Your task to perform on an android device: check out phone information Image 0: 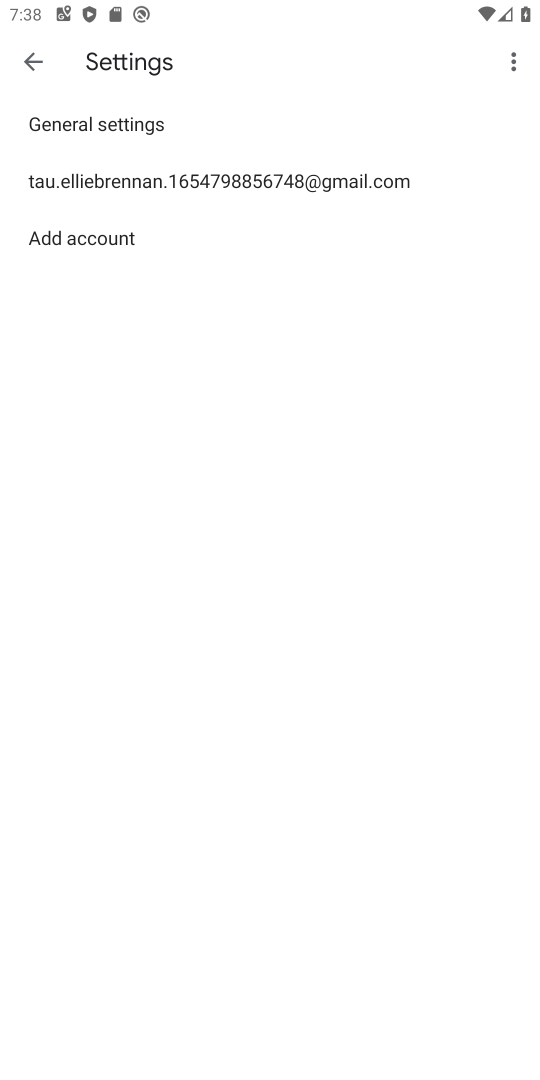
Step 0: press home button
Your task to perform on an android device: check out phone information Image 1: 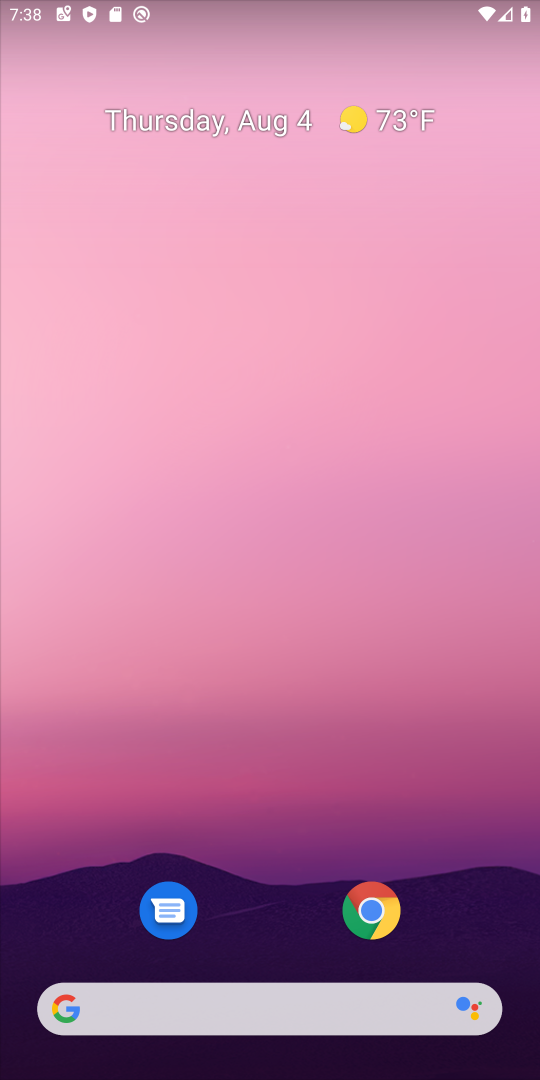
Step 1: drag from (299, 924) to (243, 33)
Your task to perform on an android device: check out phone information Image 2: 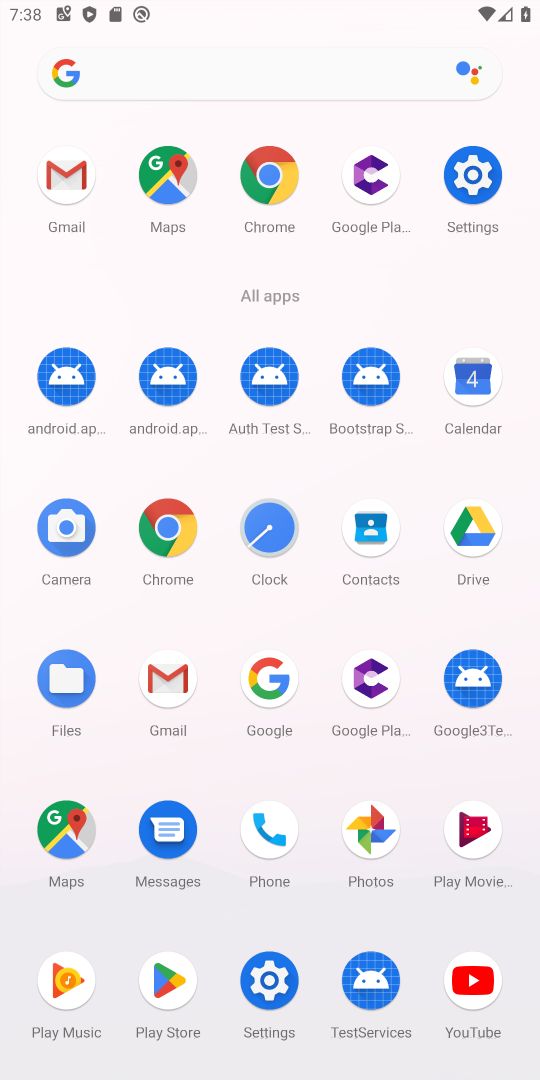
Step 2: click (256, 832)
Your task to perform on an android device: check out phone information Image 3: 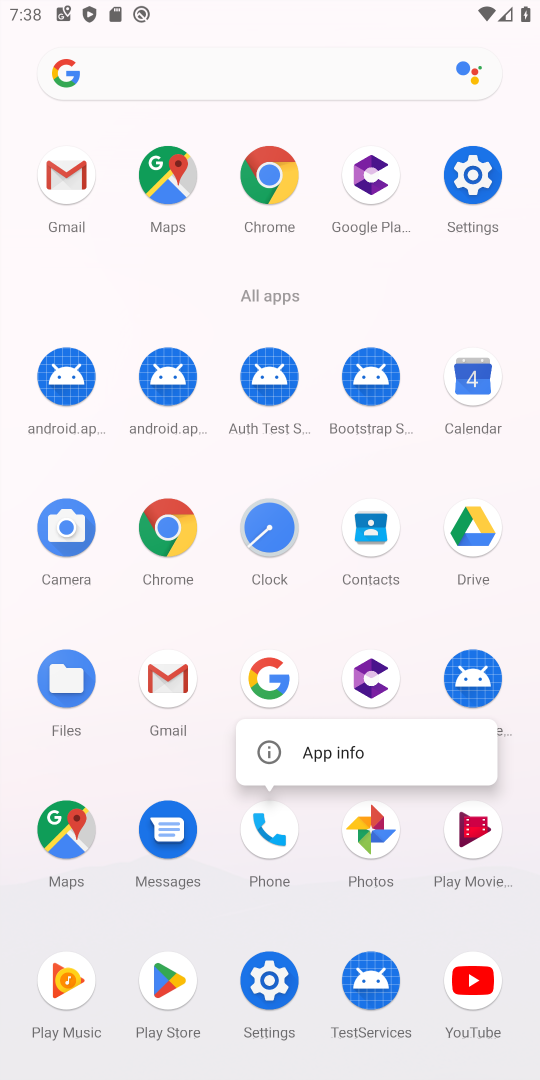
Step 3: click (372, 744)
Your task to perform on an android device: check out phone information Image 4: 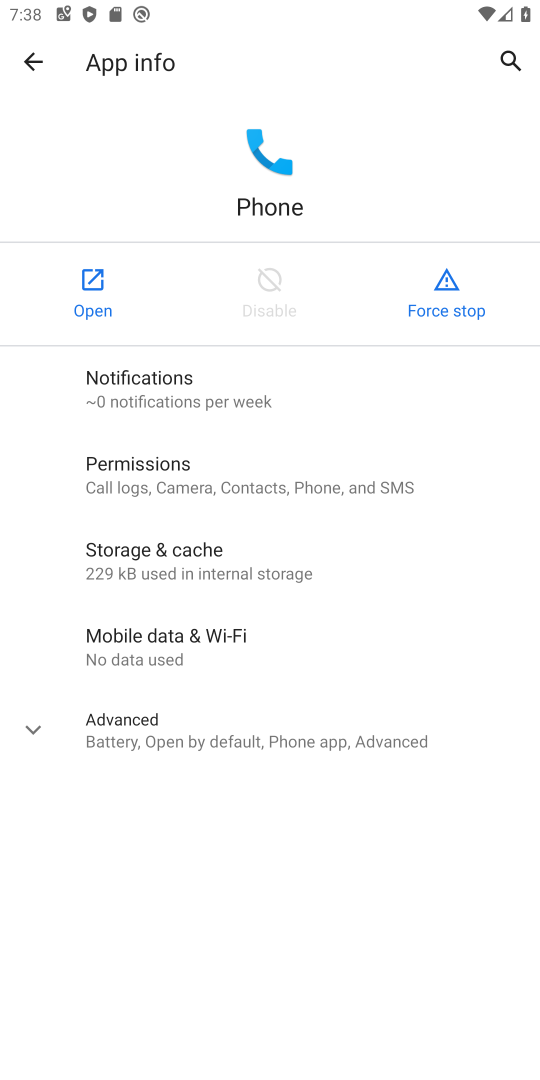
Step 4: click (372, 744)
Your task to perform on an android device: check out phone information Image 5: 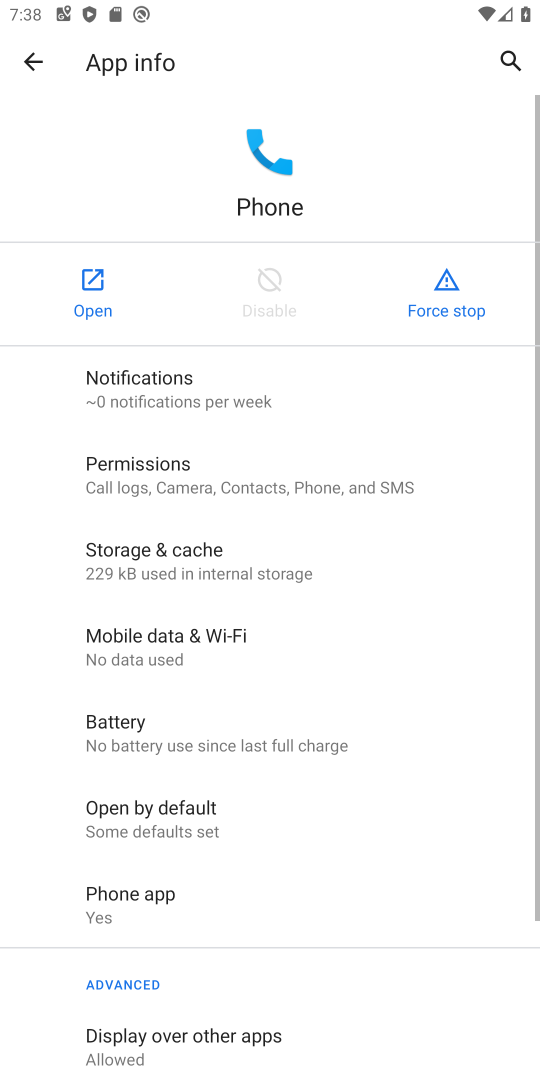
Step 5: task complete